Your task to perform on an android device: Turn off the flashlight Image 0: 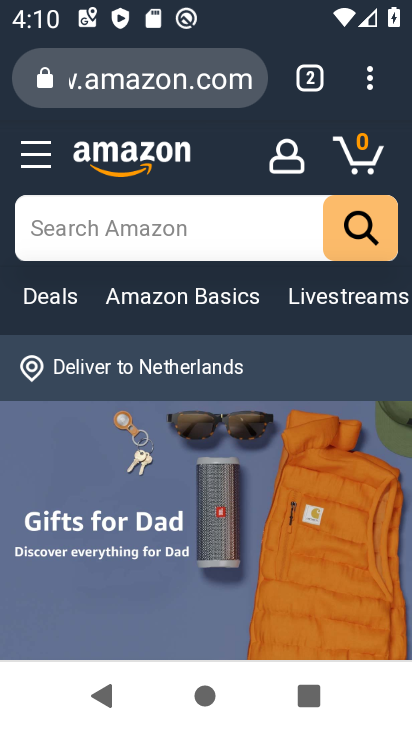
Step 0: press home button
Your task to perform on an android device: Turn off the flashlight Image 1: 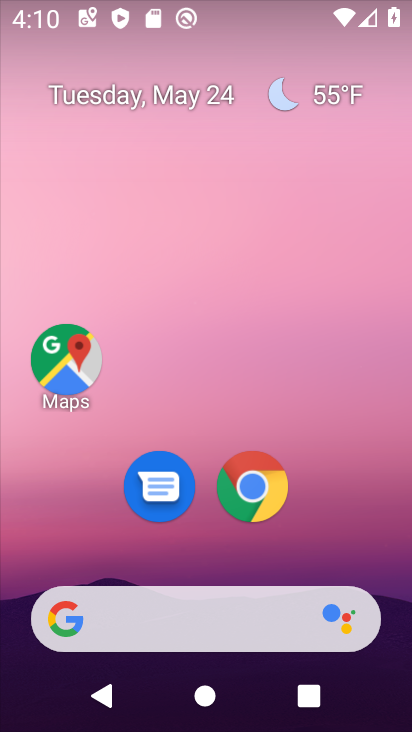
Step 1: drag from (334, 561) to (285, 247)
Your task to perform on an android device: Turn off the flashlight Image 2: 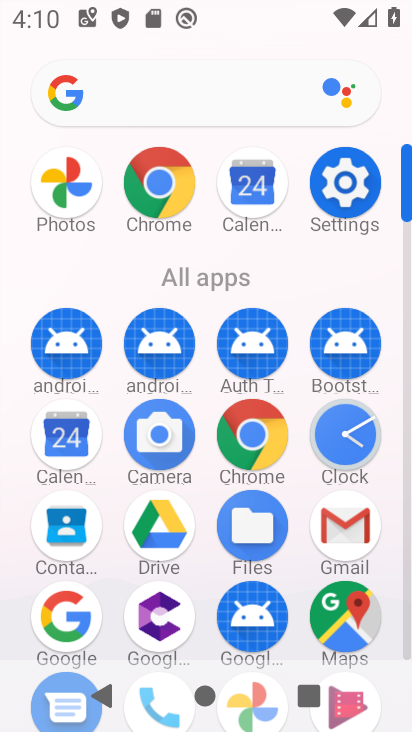
Step 2: click (338, 183)
Your task to perform on an android device: Turn off the flashlight Image 3: 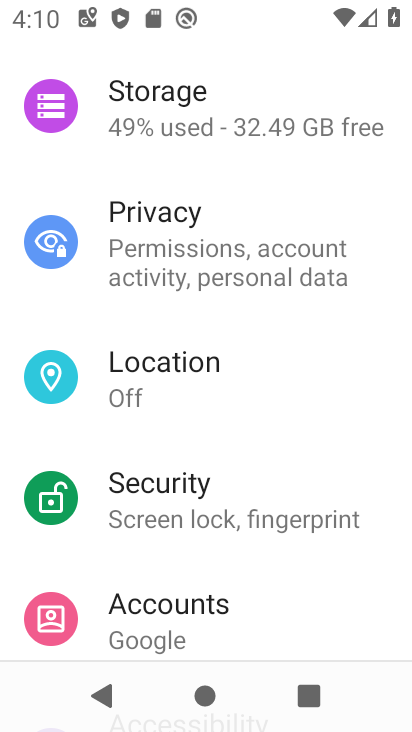
Step 3: drag from (274, 525) to (232, 196)
Your task to perform on an android device: Turn off the flashlight Image 4: 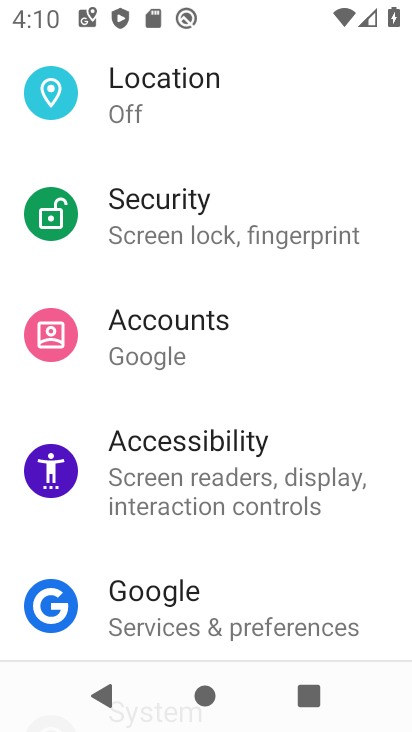
Step 4: drag from (248, 523) to (208, 182)
Your task to perform on an android device: Turn off the flashlight Image 5: 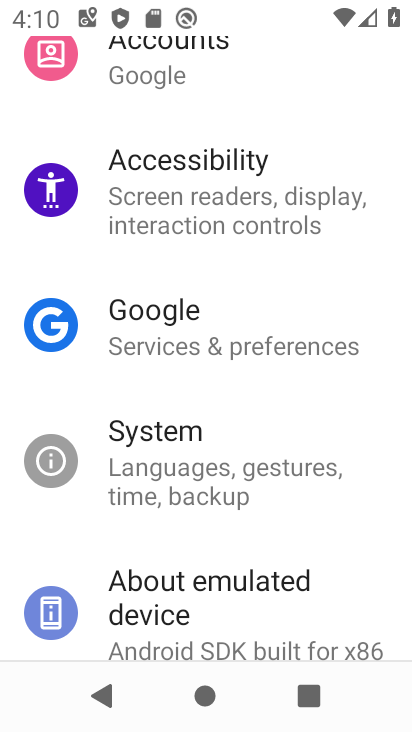
Step 5: drag from (227, 145) to (244, 582)
Your task to perform on an android device: Turn off the flashlight Image 6: 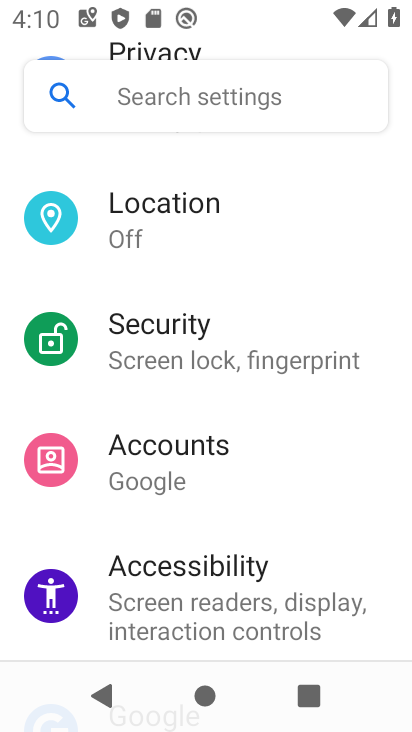
Step 6: drag from (214, 315) to (231, 550)
Your task to perform on an android device: Turn off the flashlight Image 7: 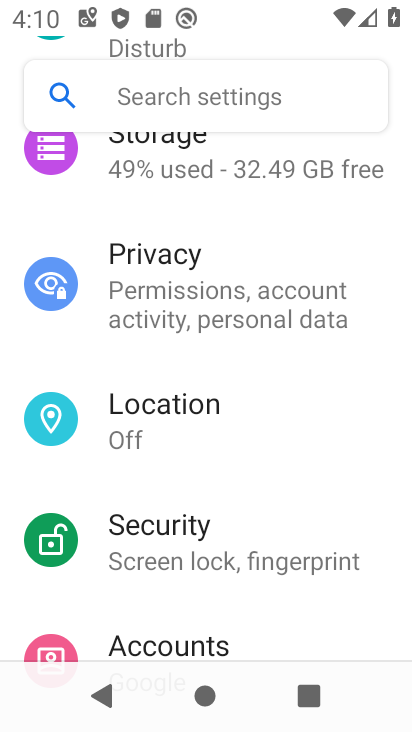
Step 7: drag from (266, 364) to (230, 599)
Your task to perform on an android device: Turn off the flashlight Image 8: 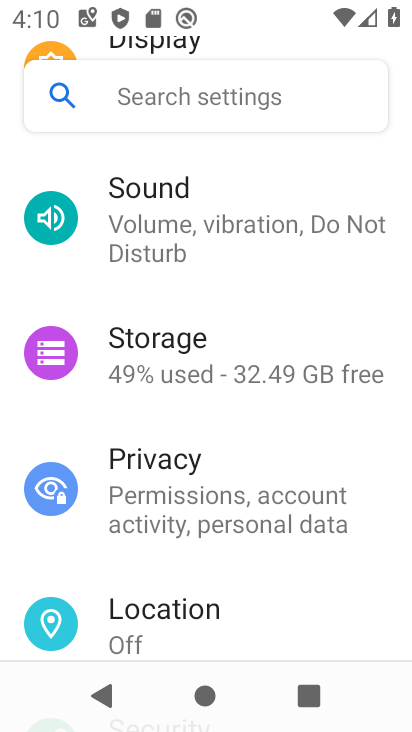
Step 8: drag from (194, 301) to (197, 575)
Your task to perform on an android device: Turn off the flashlight Image 9: 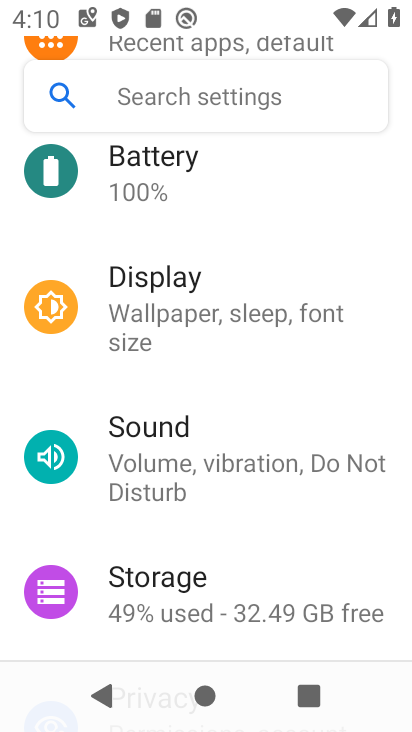
Step 9: click (167, 337)
Your task to perform on an android device: Turn off the flashlight Image 10: 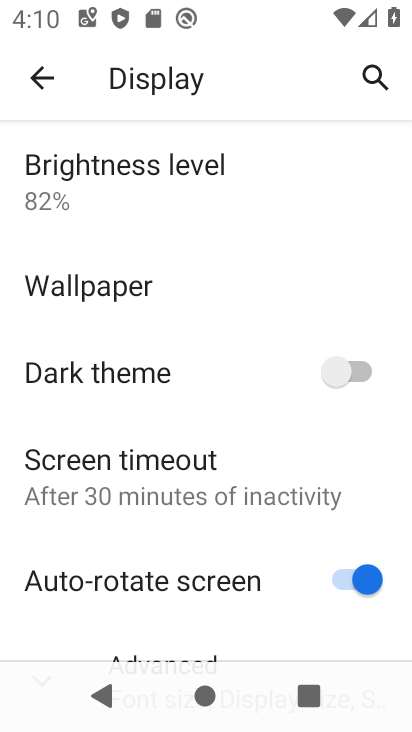
Step 10: task complete